Your task to perform on an android device: What is the recent news? Image 0: 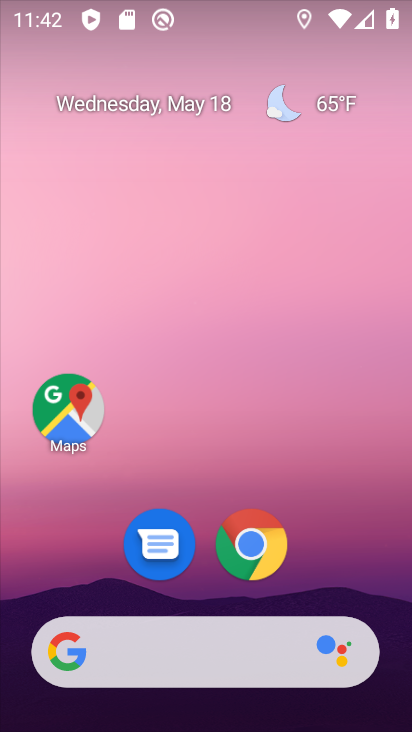
Step 0: drag from (24, 222) to (386, 342)
Your task to perform on an android device: What is the recent news? Image 1: 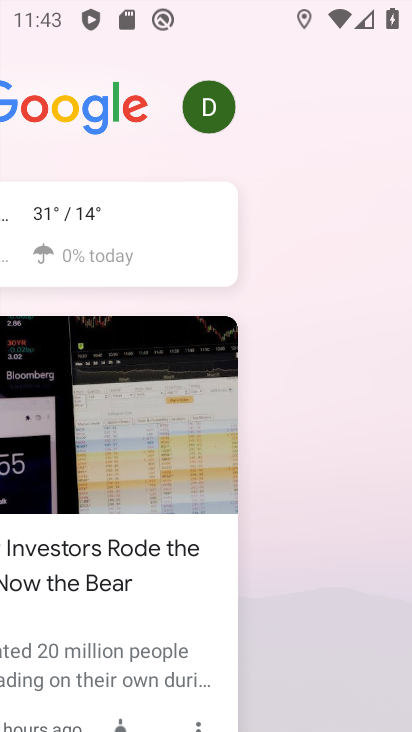
Step 1: task complete